Your task to perform on an android device: Open sound settings Image 0: 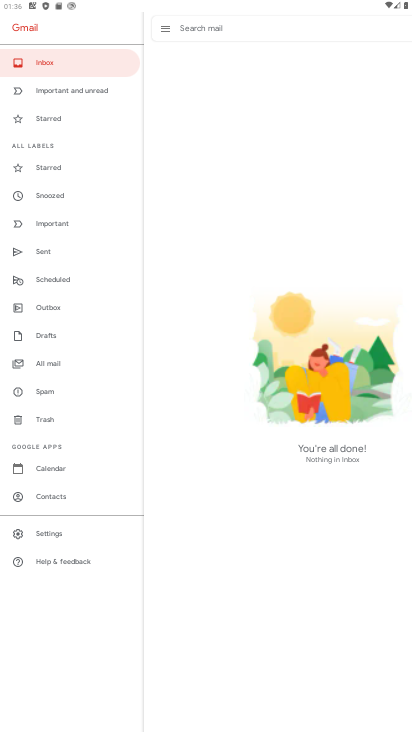
Step 0: press home button
Your task to perform on an android device: Open sound settings Image 1: 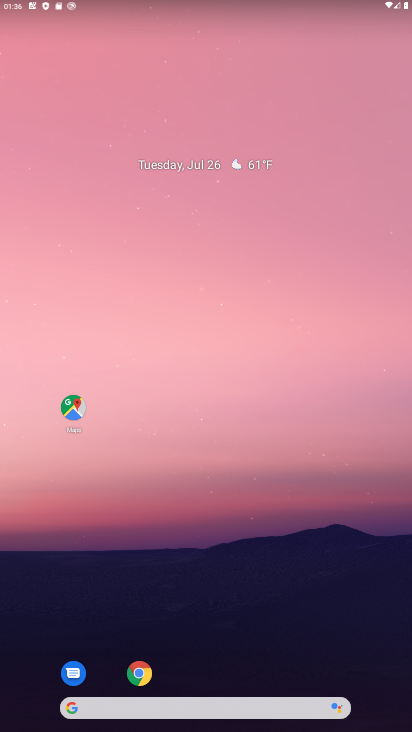
Step 1: drag from (218, 622) to (217, 155)
Your task to perform on an android device: Open sound settings Image 2: 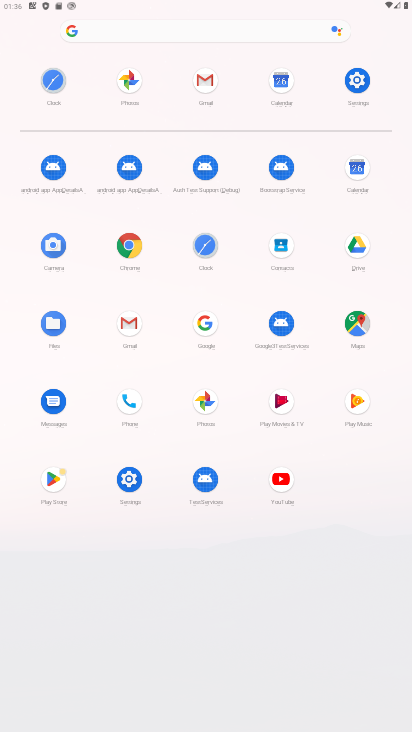
Step 2: click (367, 80)
Your task to perform on an android device: Open sound settings Image 3: 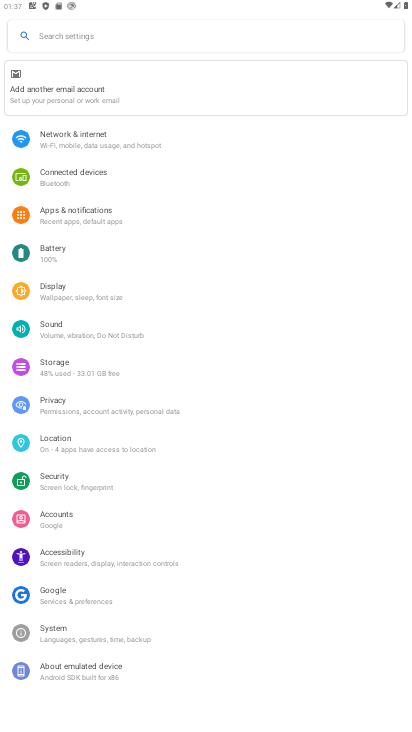
Step 3: click (53, 325)
Your task to perform on an android device: Open sound settings Image 4: 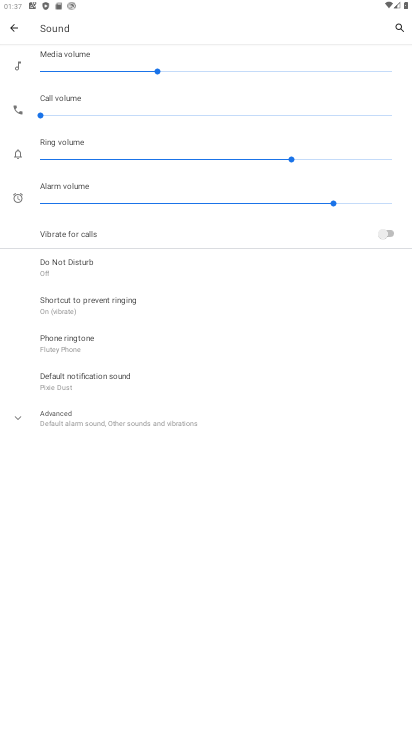
Step 4: task complete